Your task to perform on an android device: Go to Maps Image 0: 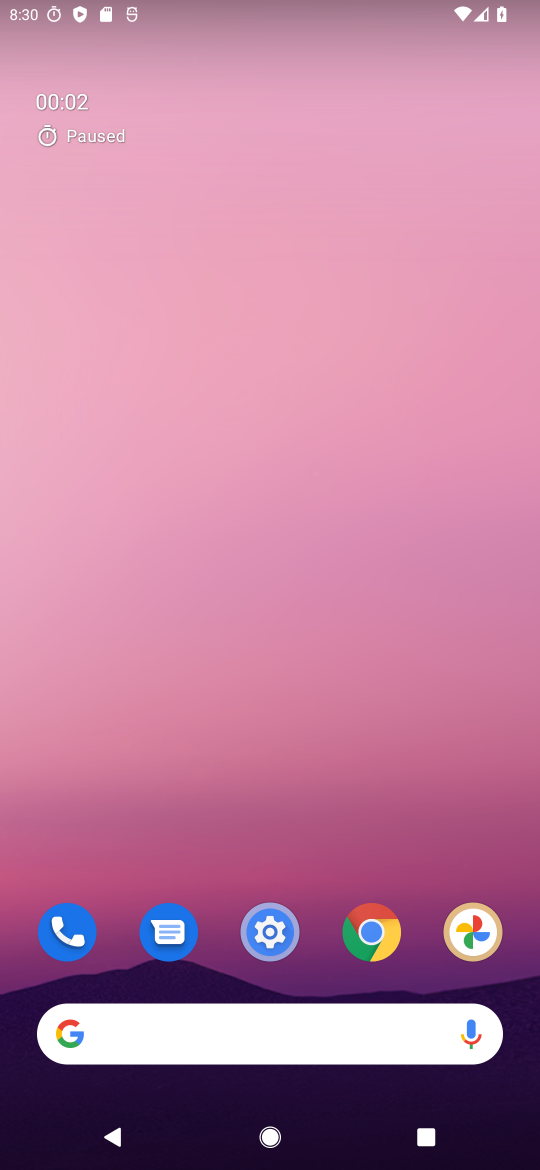
Step 0: press home button
Your task to perform on an android device: Go to Maps Image 1: 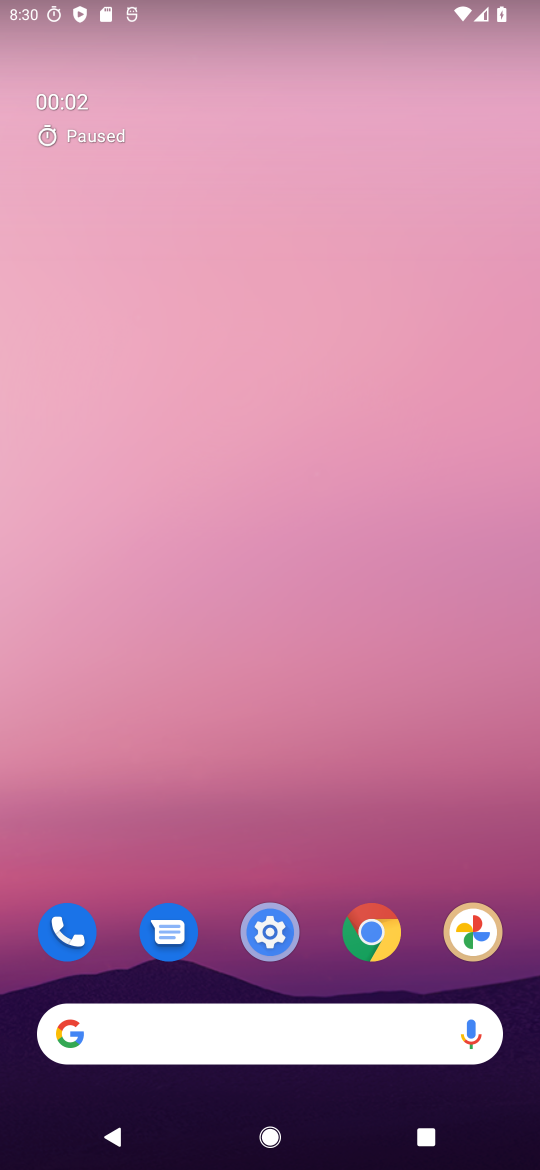
Step 1: drag from (259, 1052) to (511, 207)
Your task to perform on an android device: Go to Maps Image 2: 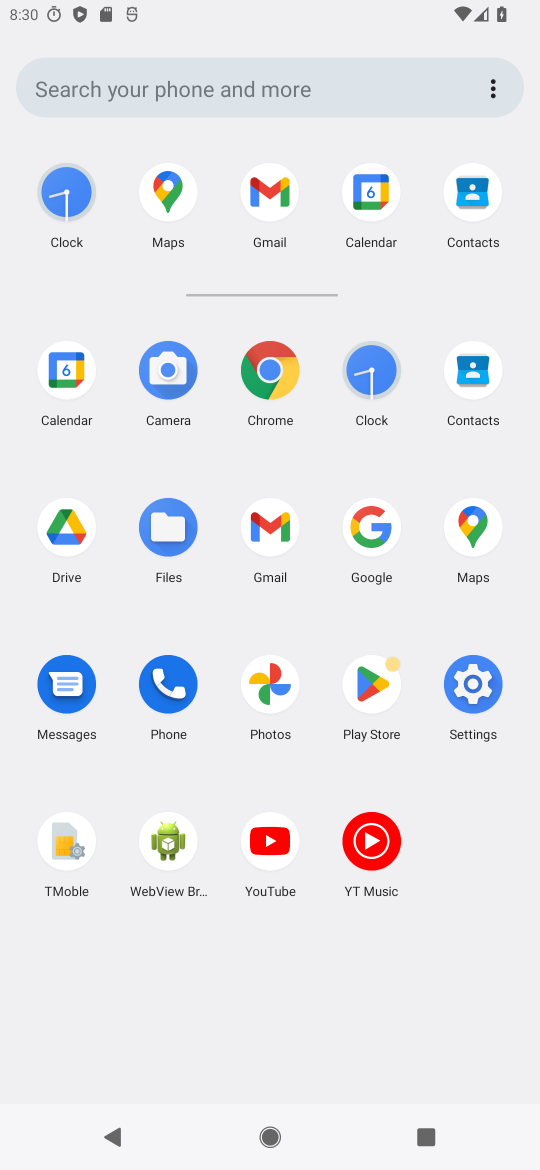
Step 2: click (475, 529)
Your task to perform on an android device: Go to Maps Image 3: 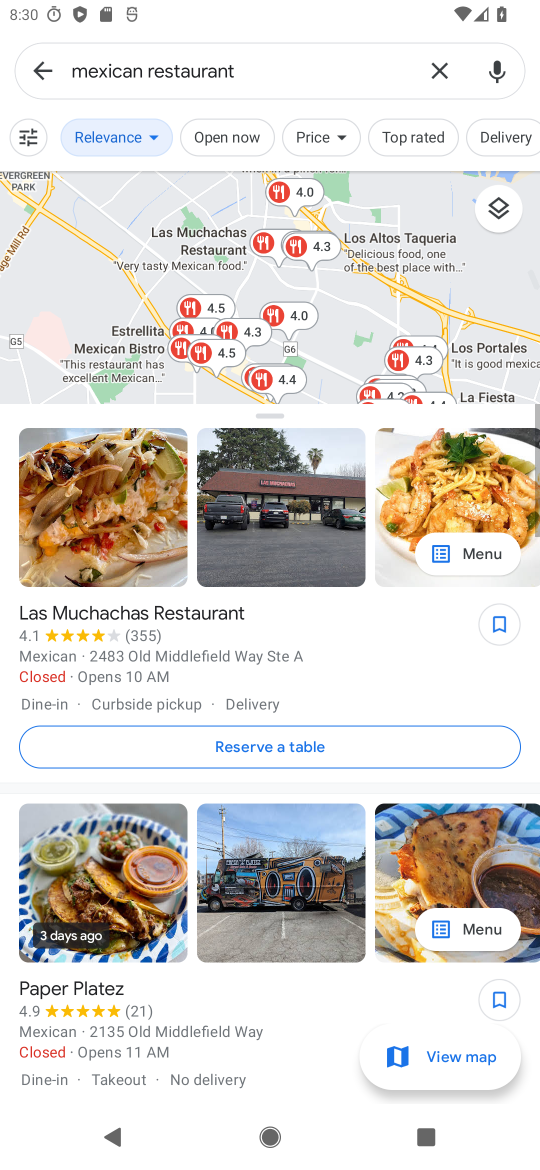
Step 3: click (441, 68)
Your task to perform on an android device: Go to Maps Image 4: 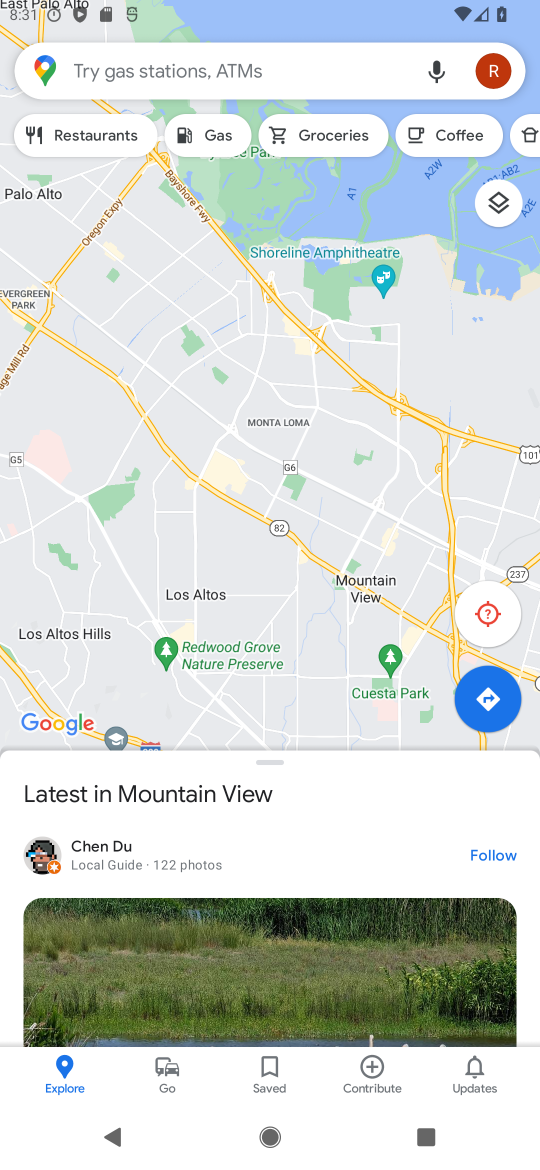
Step 4: task complete